Your task to perform on an android device: toggle wifi Image 0: 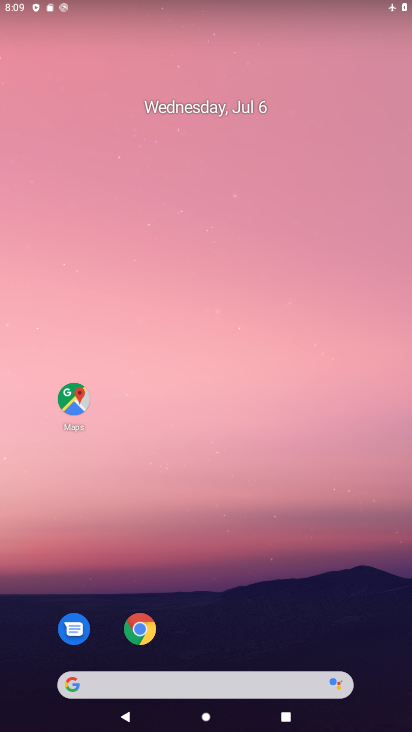
Step 0: drag from (202, 699) to (90, 160)
Your task to perform on an android device: toggle wifi Image 1: 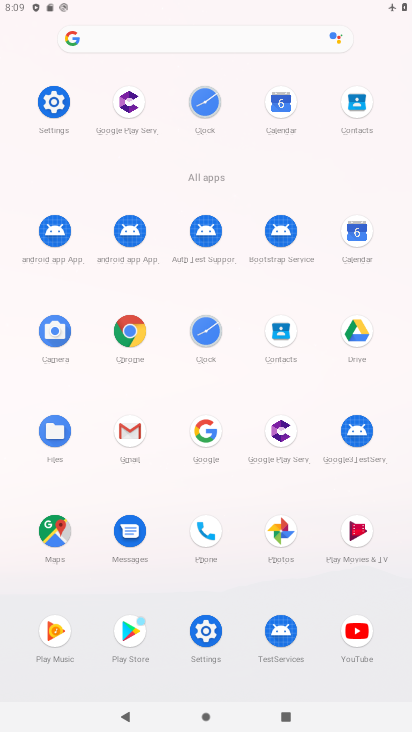
Step 1: click (53, 104)
Your task to perform on an android device: toggle wifi Image 2: 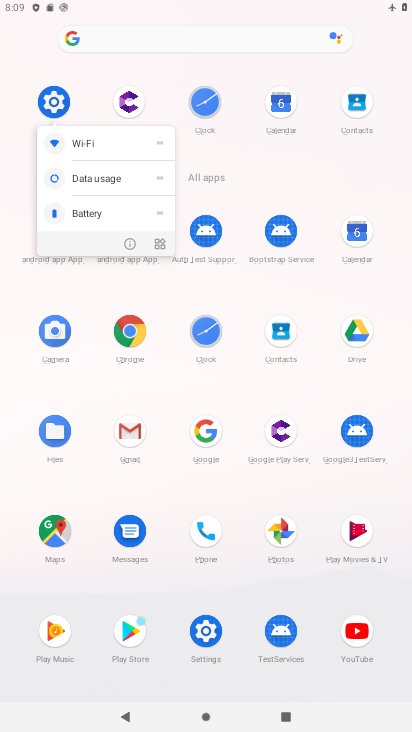
Step 2: click (73, 144)
Your task to perform on an android device: toggle wifi Image 3: 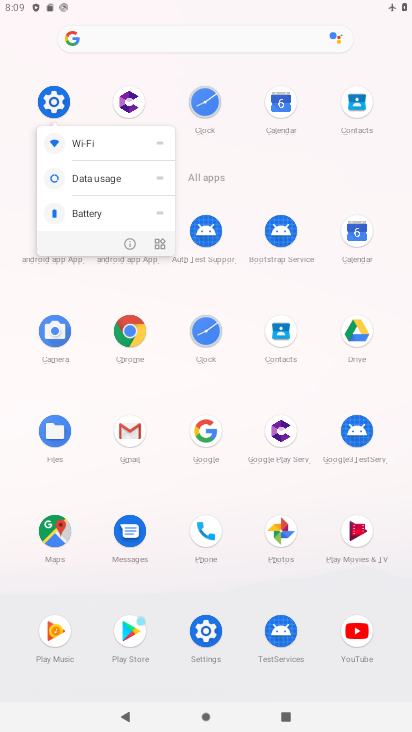
Step 3: click (74, 140)
Your task to perform on an android device: toggle wifi Image 4: 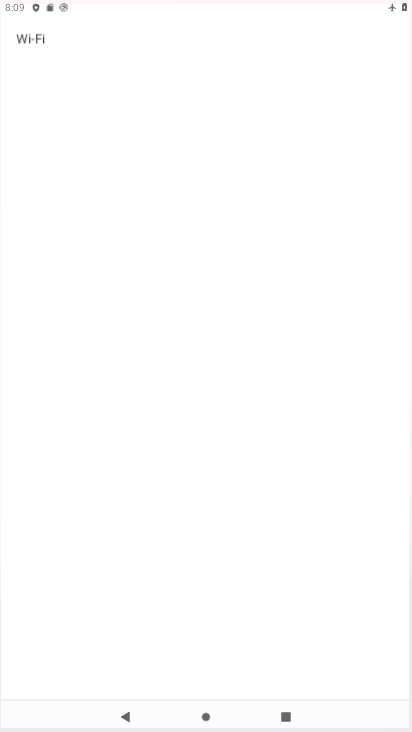
Step 4: click (74, 120)
Your task to perform on an android device: toggle wifi Image 5: 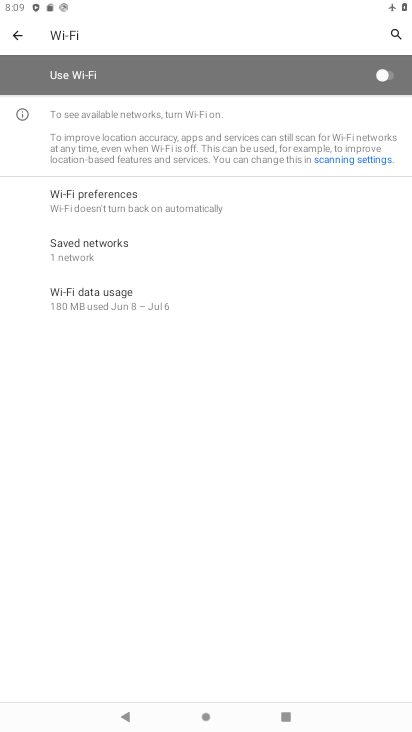
Step 5: click (378, 77)
Your task to perform on an android device: toggle wifi Image 6: 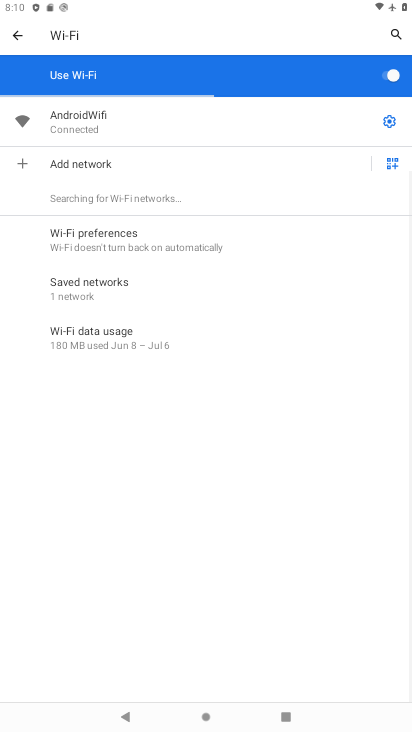
Step 6: task complete